Your task to perform on an android device: When is my next meeting? Image 0: 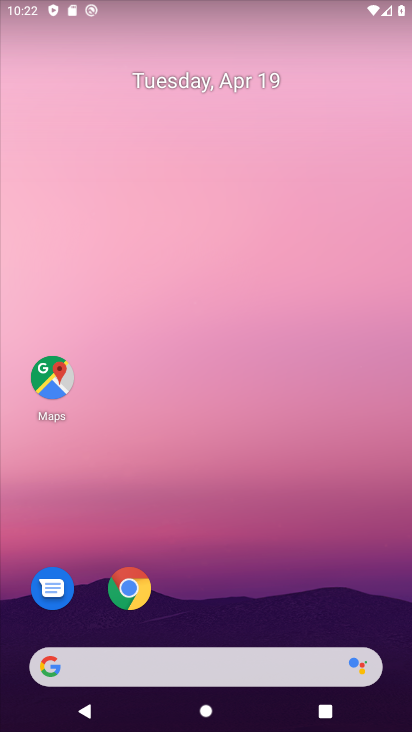
Step 0: click (169, 84)
Your task to perform on an android device: When is my next meeting? Image 1: 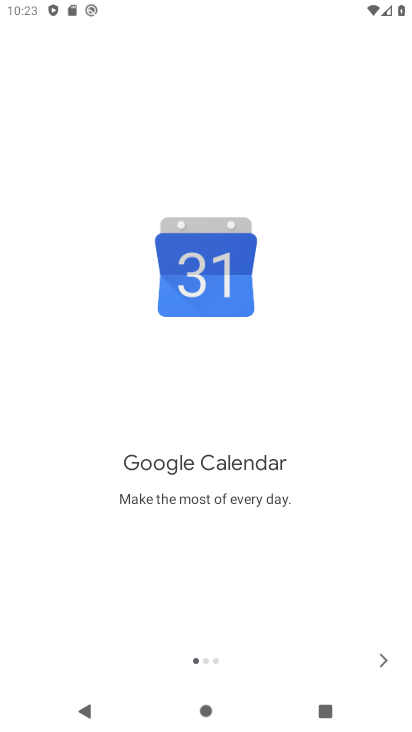
Step 1: click (387, 652)
Your task to perform on an android device: When is my next meeting? Image 2: 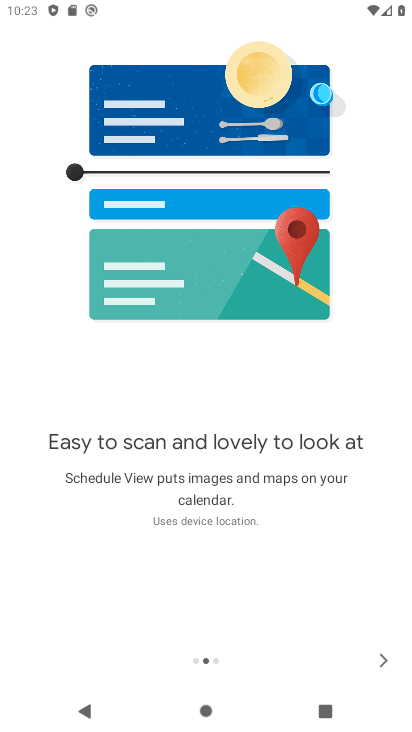
Step 2: click (387, 652)
Your task to perform on an android device: When is my next meeting? Image 3: 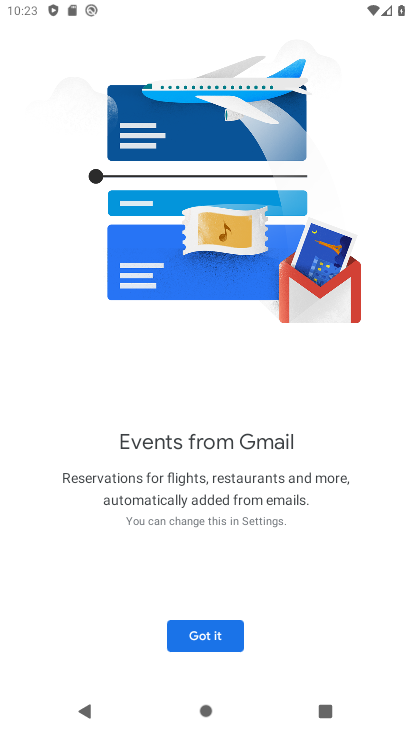
Step 3: click (210, 644)
Your task to perform on an android device: When is my next meeting? Image 4: 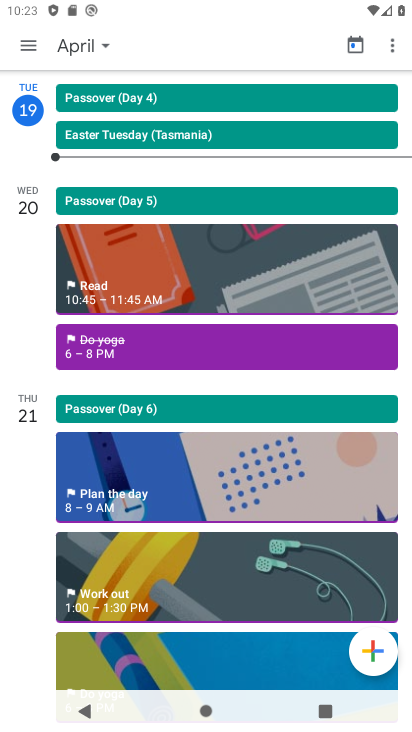
Step 4: click (74, 46)
Your task to perform on an android device: When is my next meeting? Image 5: 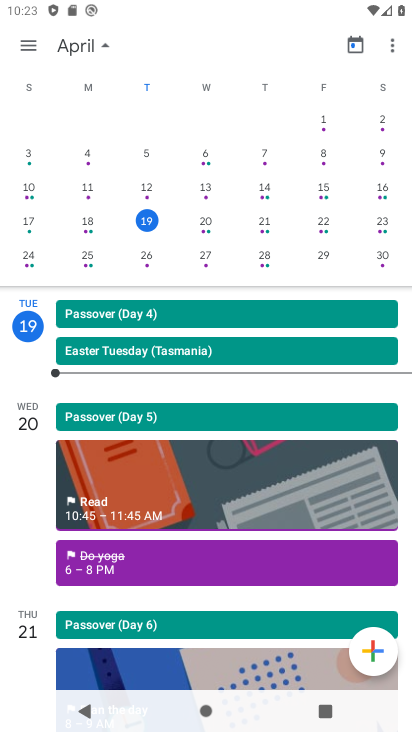
Step 5: click (22, 53)
Your task to perform on an android device: When is my next meeting? Image 6: 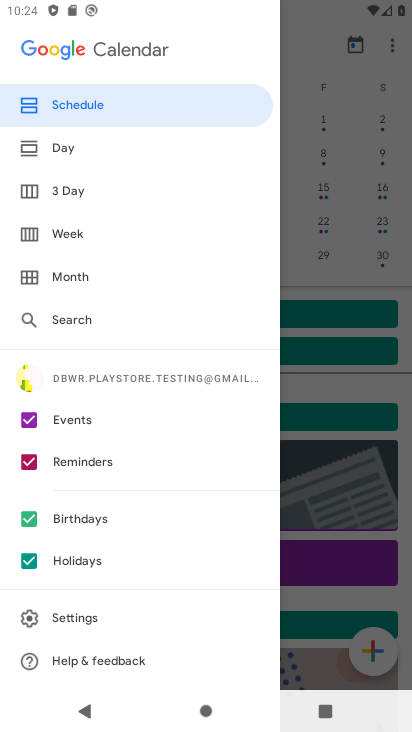
Step 6: click (34, 425)
Your task to perform on an android device: When is my next meeting? Image 7: 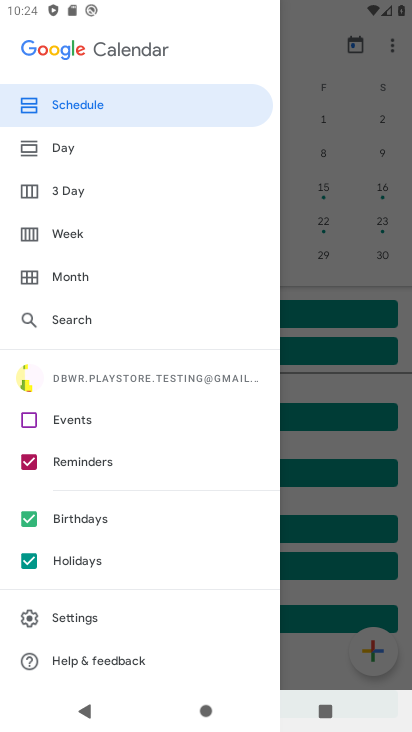
Step 7: click (28, 524)
Your task to perform on an android device: When is my next meeting? Image 8: 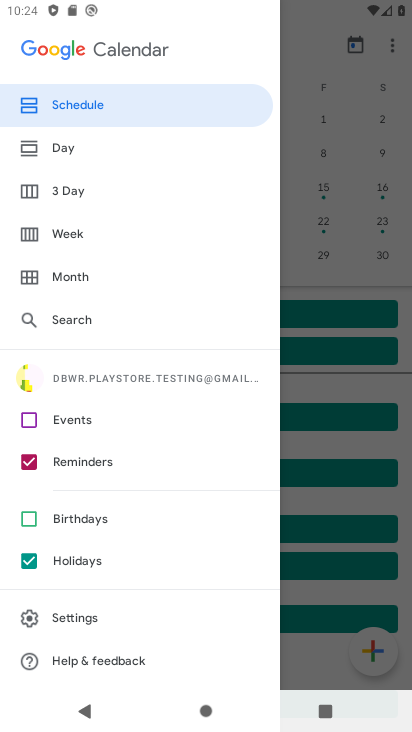
Step 8: click (29, 562)
Your task to perform on an android device: When is my next meeting? Image 9: 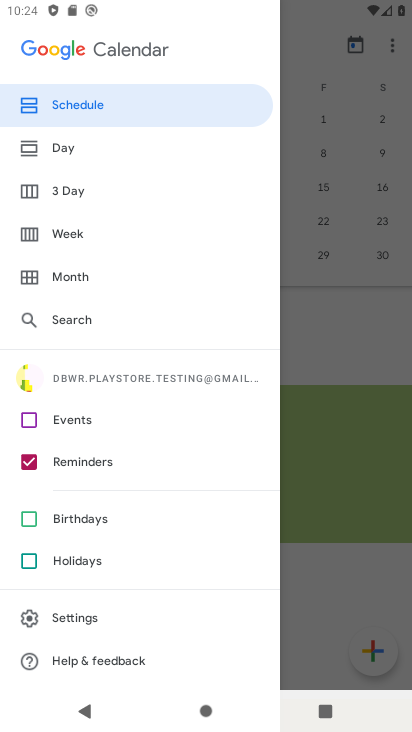
Step 9: click (330, 337)
Your task to perform on an android device: When is my next meeting? Image 10: 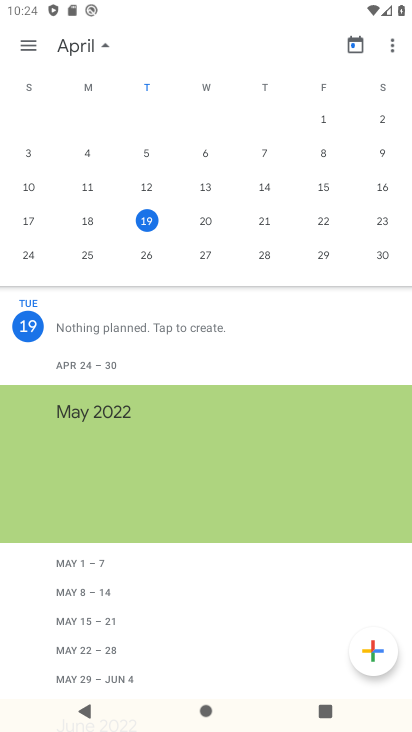
Step 10: click (353, 50)
Your task to perform on an android device: When is my next meeting? Image 11: 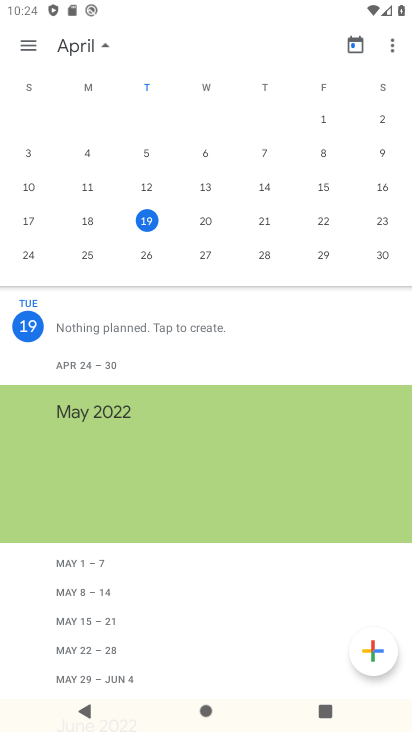
Step 11: click (353, 50)
Your task to perform on an android device: When is my next meeting? Image 12: 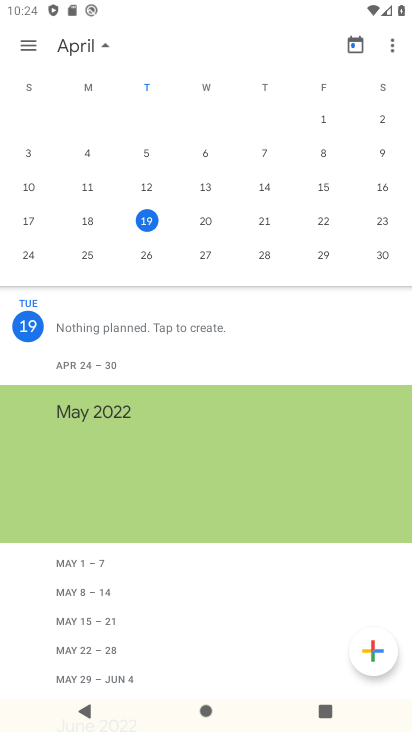
Step 12: click (390, 45)
Your task to perform on an android device: When is my next meeting? Image 13: 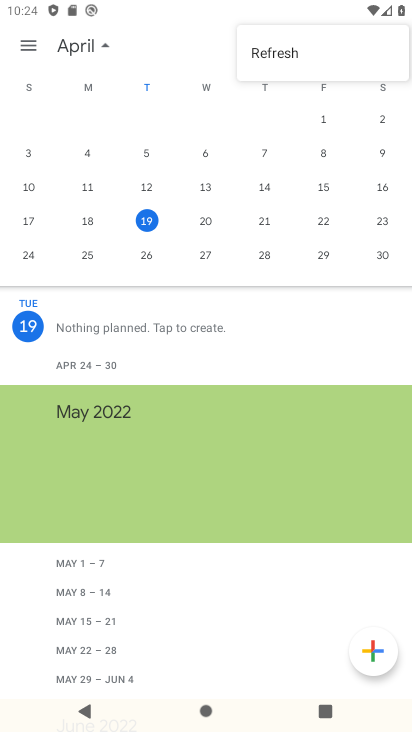
Step 13: click (166, 33)
Your task to perform on an android device: When is my next meeting? Image 14: 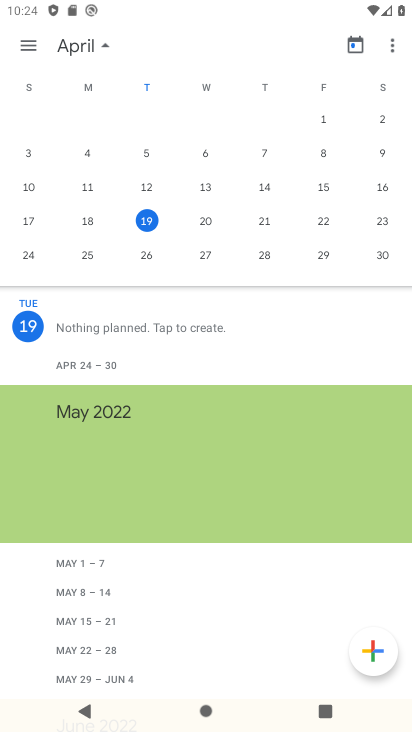
Step 14: click (352, 43)
Your task to perform on an android device: When is my next meeting? Image 15: 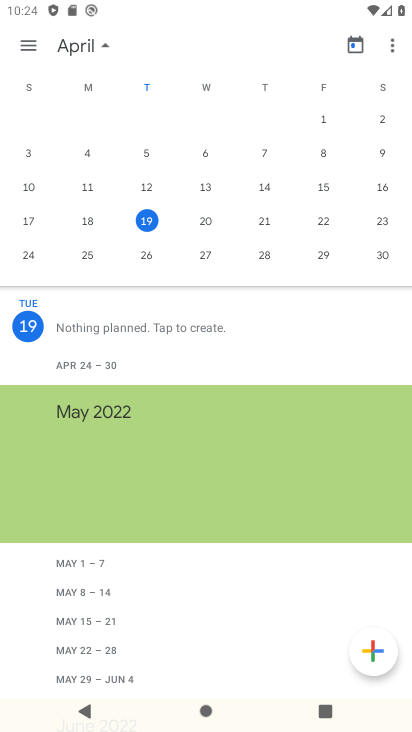
Step 15: click (352, 43)
Your task to perform on an android device: When is my next meeting? Image 16: 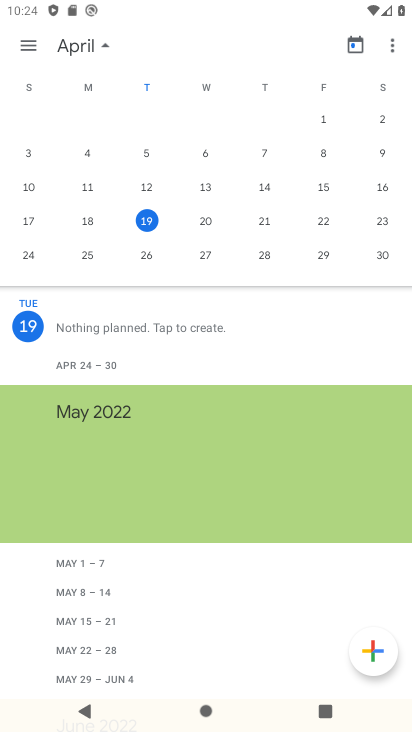
Step 16: click (352, 43)
Your task to perform on an android device: When is my next meeting? Image 17: 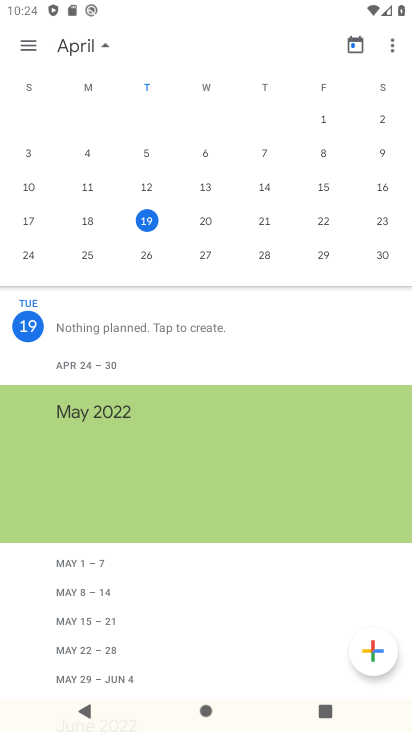
Step 17: click (381, 664)
Your task to perform on an android device: When is my next meeting? Image 18: 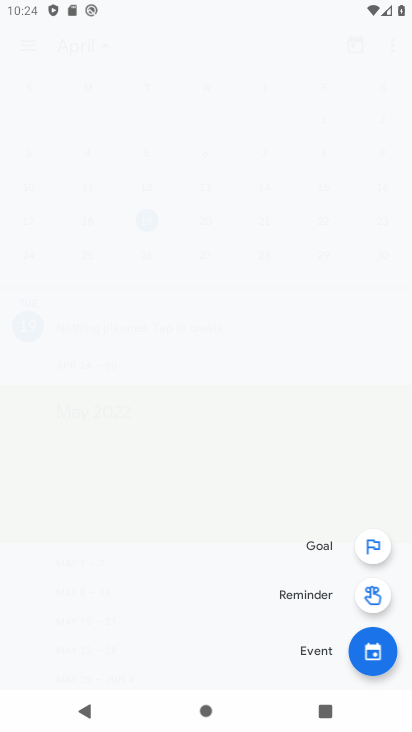
Step 18: task complete